Your task to perform on an android device: remove spam from my inbox in the gmail app Image 0: 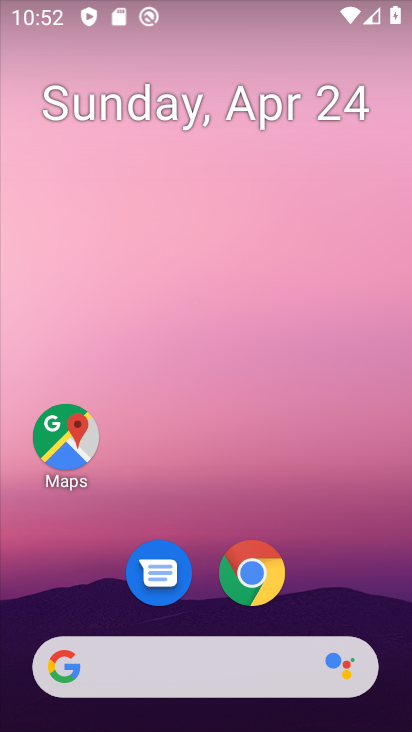
Step 0: drag from (333, 602) to (265, 33)
Your task to perform on an android device: remove spam from my inbox in the gmail app Image 1: 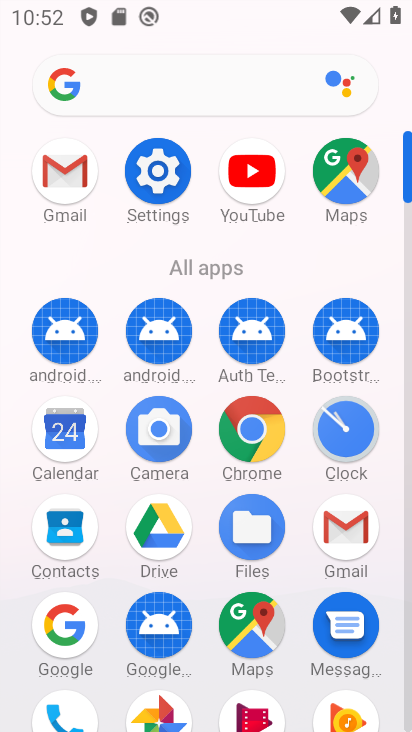
Step 1: click (341, 517)
Your task to perform on an android device: remove spam from my inbox in the gmail app Image 2: 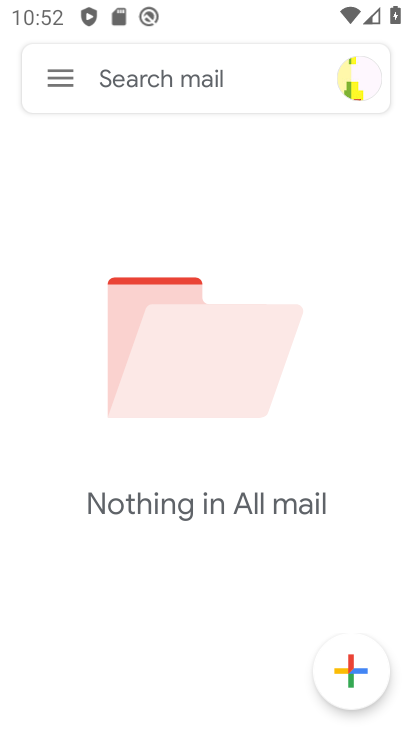
Step 2: click (53, 88)
Your task to perform on an android device: remove spam from my inbox in the gmail app Image 3: 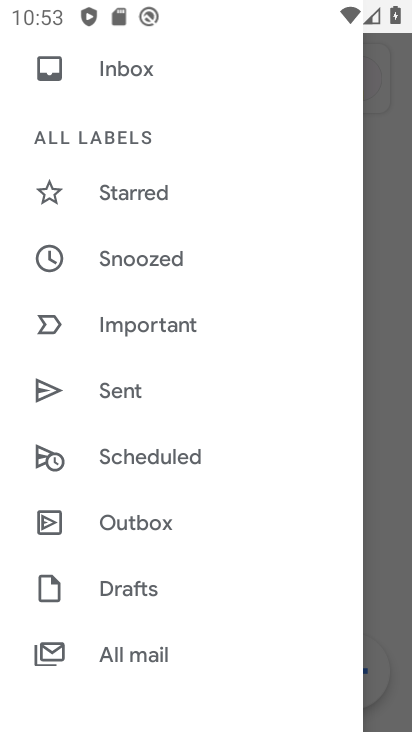
Step 3: drag from (118, 576) to (133, 415)
Your task to perform on an android device: remove spam from my inbox in the gmail app Image 4: 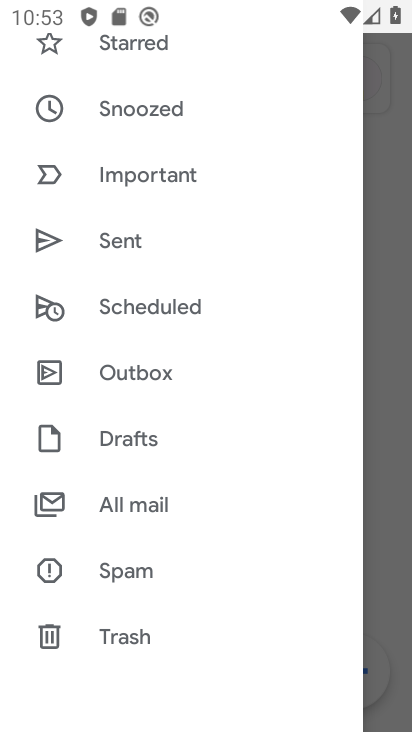
Step 4: click (146, 578)
Your task to perform on an android device: remove spam from my inbox in the gmail app Image 5: 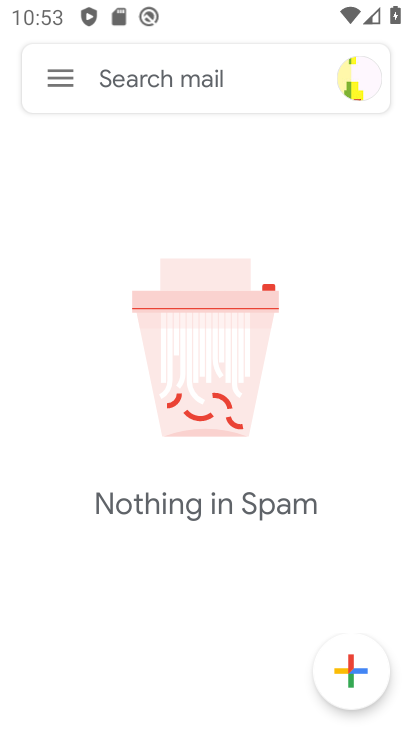
Step 5: task complete